Your task to perform on an android device: turn on airplane mode Image 0: 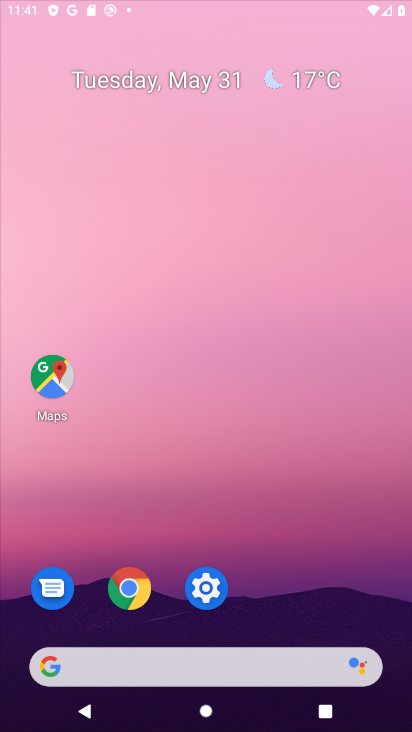
Step 0: press home button
Your task to perform on an android device: turn on airplane mode Image 1: 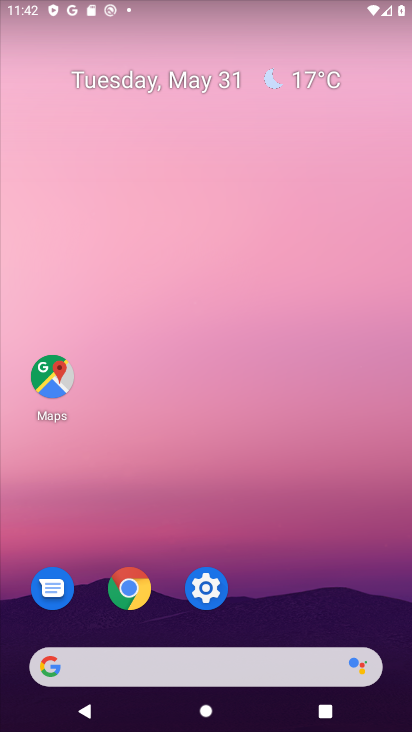
Step 1: click (209, 592)
Your task to perform on an android device: turn on airplane mode Image 2: 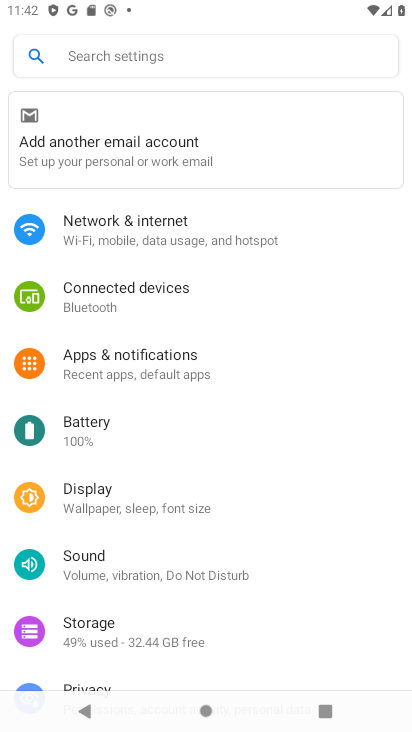
Step 2: click (120, 240)
Your task to perform on an android device: turn on airplane mode Image 3: 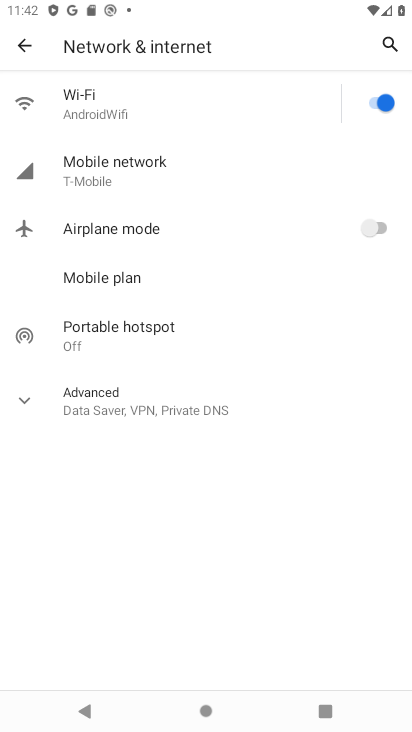
Step 3: click (372, 226)
Your task to perform on an android device: turn on airplane mode Image 4: 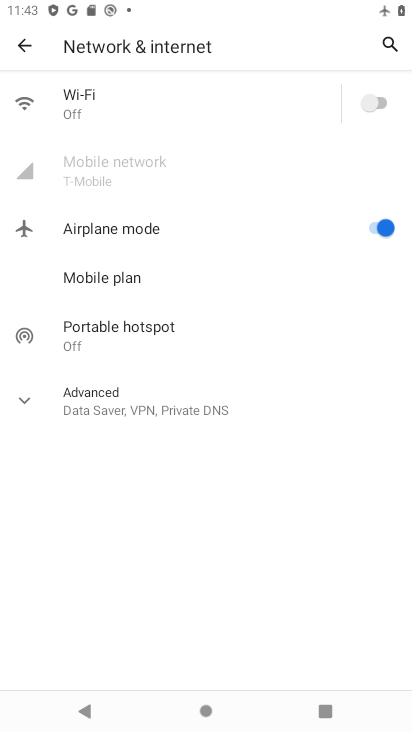
Step 4: task complete